Your task to perform on an android device: toggle translation in the chrome app Image 0: 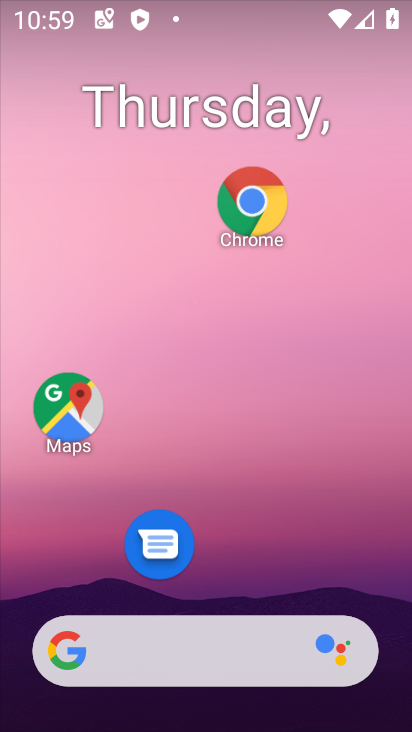
Step 0: click (252, 195)
Your task to perform on an android device: toggle translation in the chrome app Image 1: 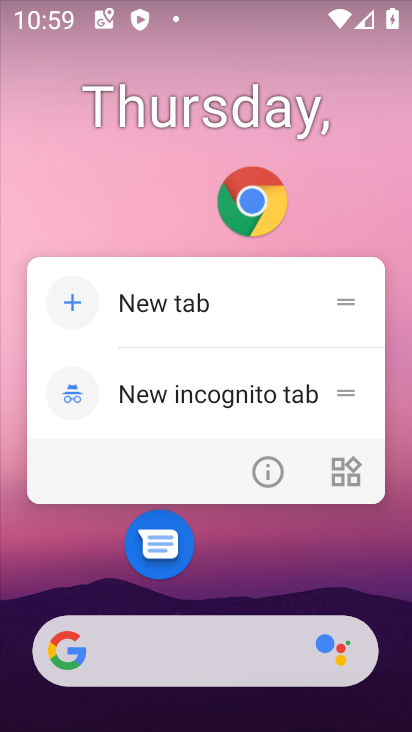
Step 1: click (249, 189)
Your task to perform on an android device: toggle translation in the chrome app Image 2: 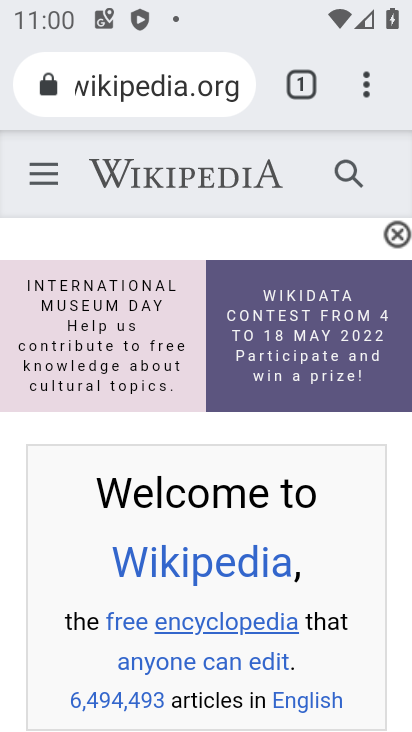
Step 2: click (364, 80)
Your task to perform on an android device: toggle translation in the chrome app Image 3: 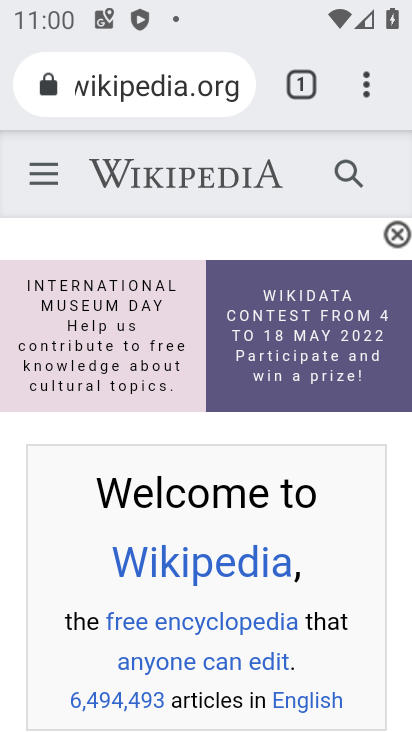
Step 3: click (362, 78)
Your task to perform on an android device: toggle translation in the chrome app Image 4: 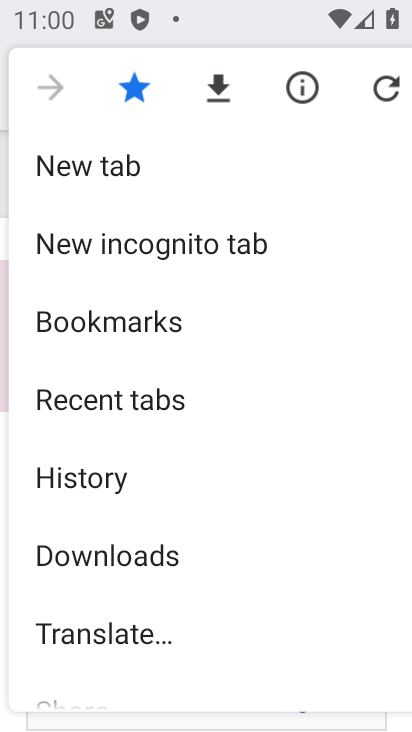
Step 4: drag from (195, 484) to (231, 73)
Your task to perform on an android device: toggle translation in the chrome app Image 5: 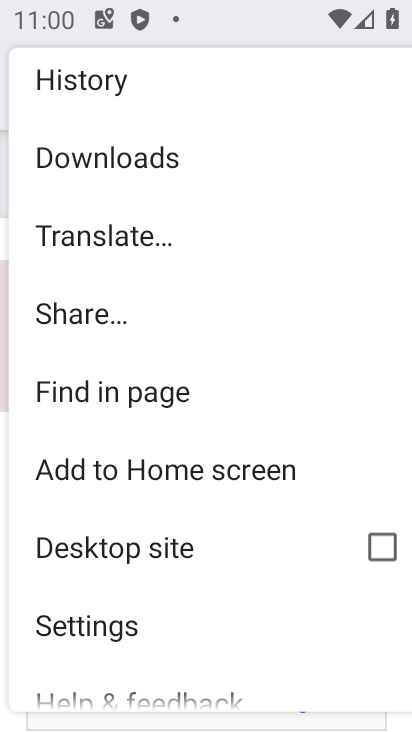
Step 5: drag from (157, 489) to (185, 196)
Your task to perform on an android device: toggle translation in the chrome app Image 6: 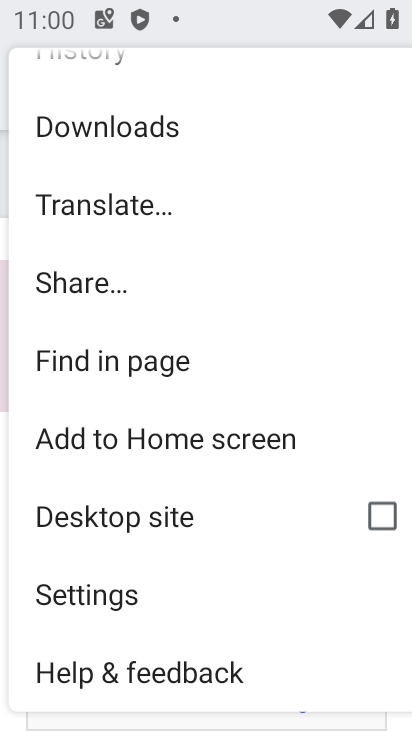
Step 6: click (147, 594)
Your task to perform on an android device: toggle translation in the chrome app Image 7: 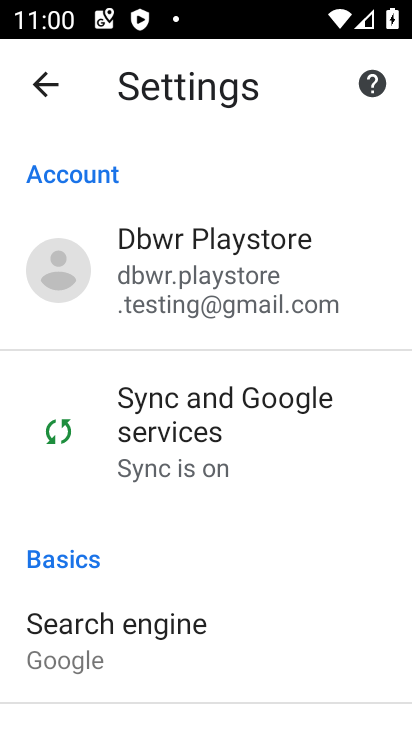
Step 7: drag from (133, 669) to (180, 190)
Your task to perform on an android device: toggle translation in the chrome app Image 8: 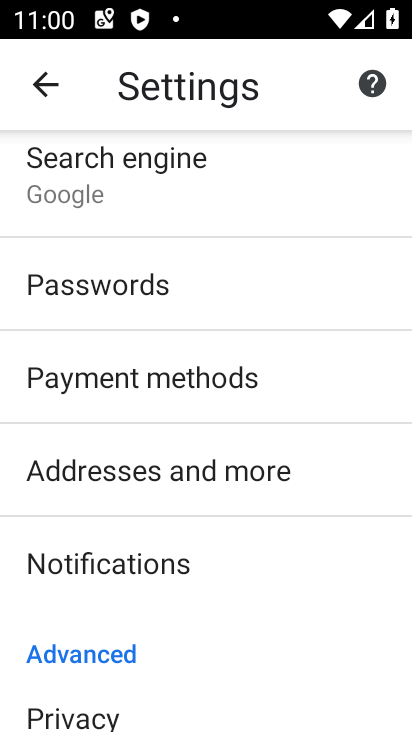
Step 8: drag from (187, 665) to (190, 155)
Your task to perform on an android device: toggle translation in the chrome app Image 9: 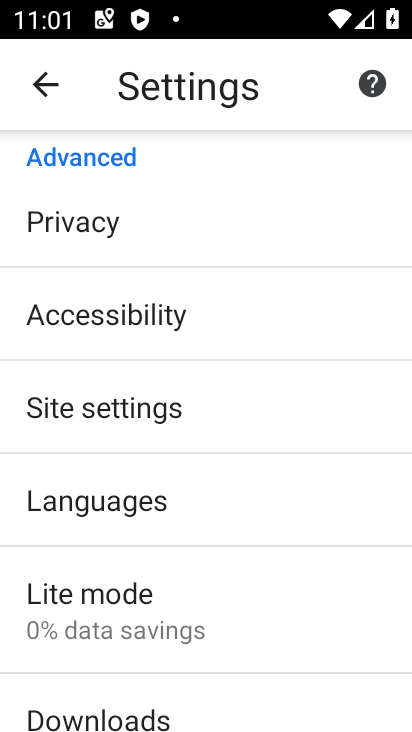
Step 9: click (166, 500)
Your task to perform on an android device: toggle translation in the chrome app Image 10: 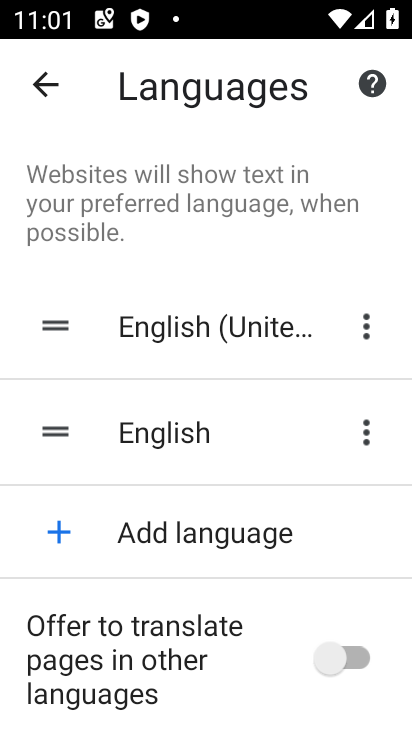
Step 10: click (354, 658)
Your task to perform on an android device: toggle translation in the chrome app Image 11: 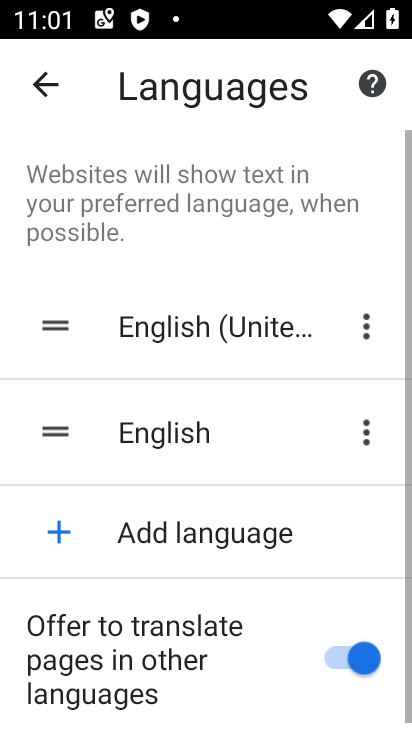
Step 11: task complete